Your task to perform on an android device: Open Chrome and go to the settings page Image 0: 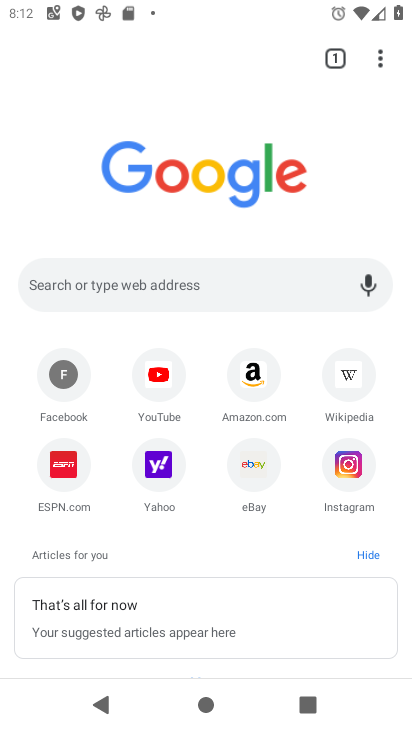
Step 0: click (380, 55)
Your task to perform on an android device: Open Chrome and go to the settings page Image 1: 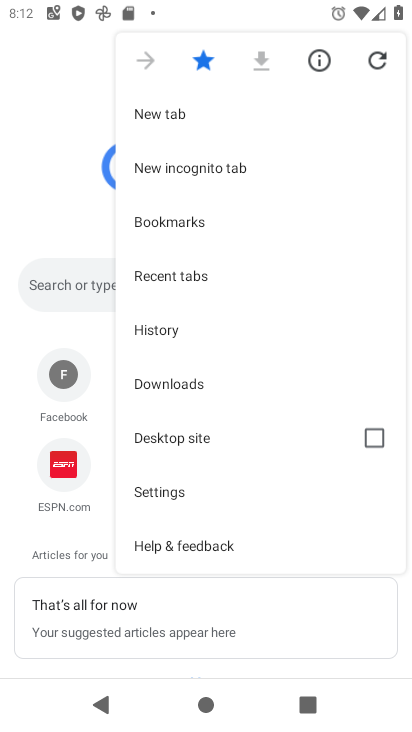
Step 1: click (238, 484)
Your task to perform on an android device: Open Chrome and go to the settings page Image 2: 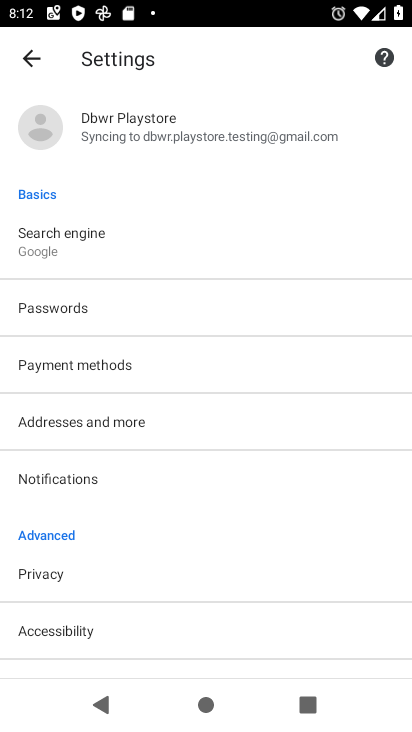
Step 2: task complete